Your task to perform on an android device: see creations saved in the google photos Image 0: 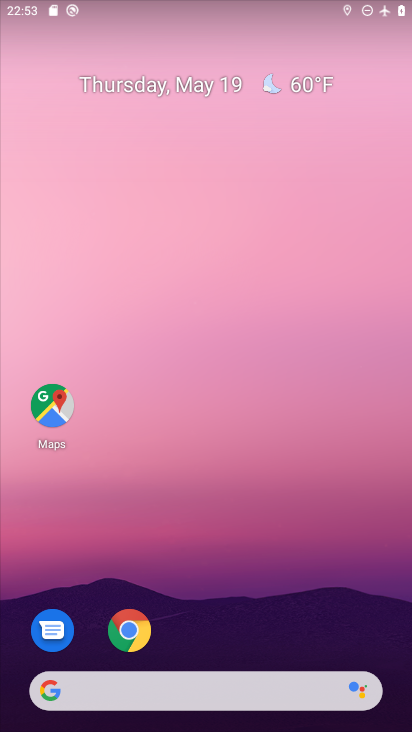
Step 0: drag from (259, 515) to (251, 30)
Your task to perform on an android device: see creations saved in the google photos Image 1: 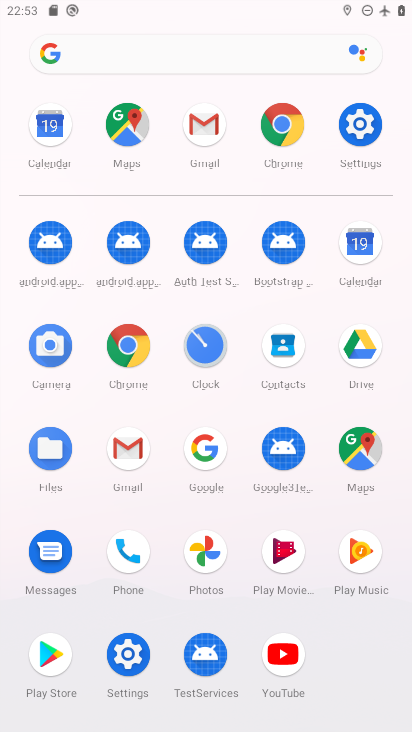
Step 1: click (201, 549)
Your task to perform on an android device: see creations saved in the google photos Image 2: 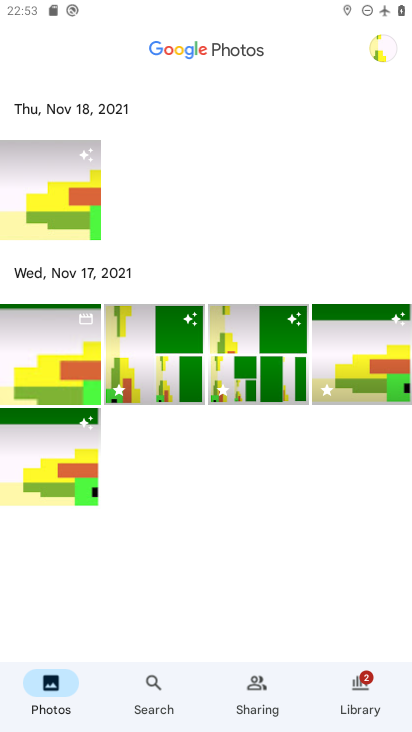
Step 2: click (150, 679)
Your task to perform on an android device: see creations saved in the google photos Image 3: 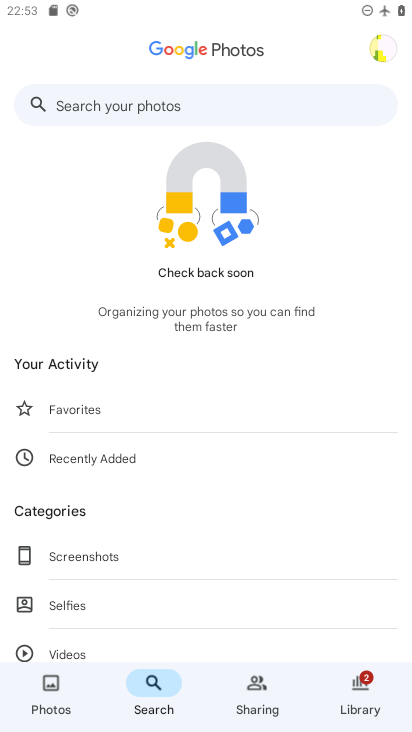
Step 3: click (145, 103)
Your task to perform on an android device: see creations saved in the google photos Image 4: 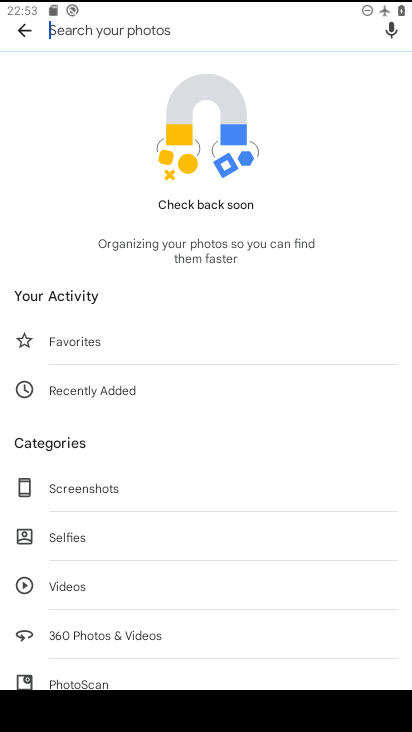
Step 4: type "creation"
Your task to perform on an android device: see creations saved in the google photos Image 5: 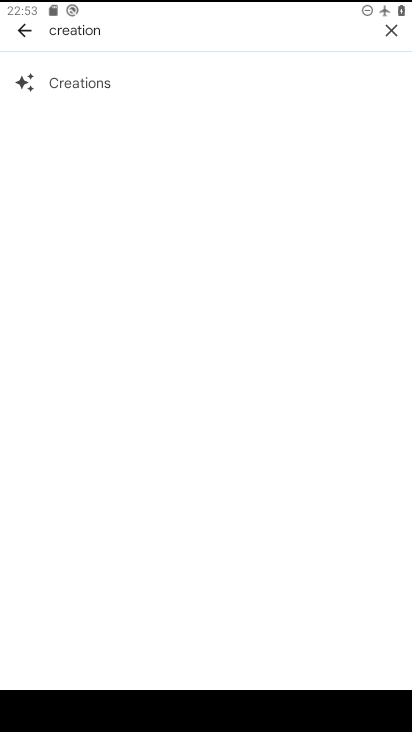
Step 5: click (69, 84)
Your task to perform on an android device: see creations saved in the google photos Image 6: 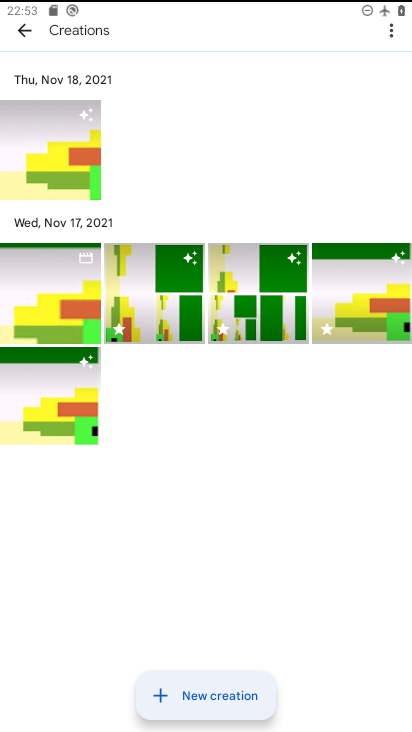
Step 6: task complete